Your task to perform on an android device: turn on translation in the chrome app Image 0: 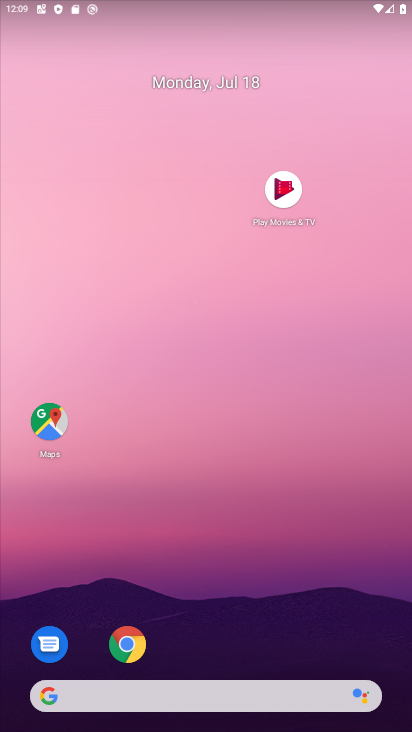
Step 0: drag from (263, 617) to (262, 60)
Your task to perform on an android device: turn on translation in the chrome app Image 1: 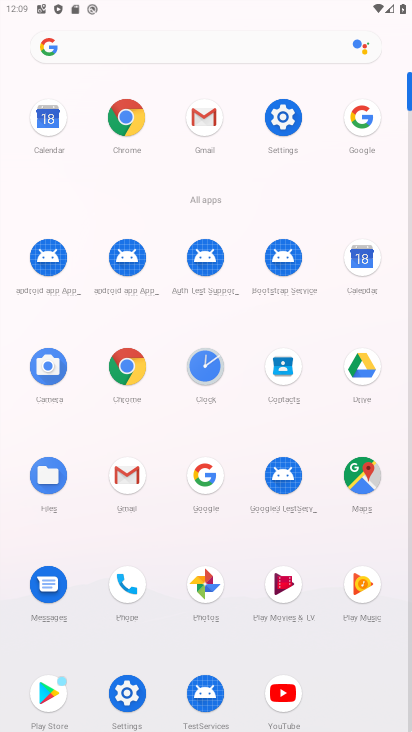
Step 1: click (124, 364)
Your task to perform on an android device: turn on translation in the chrome app Image 2: 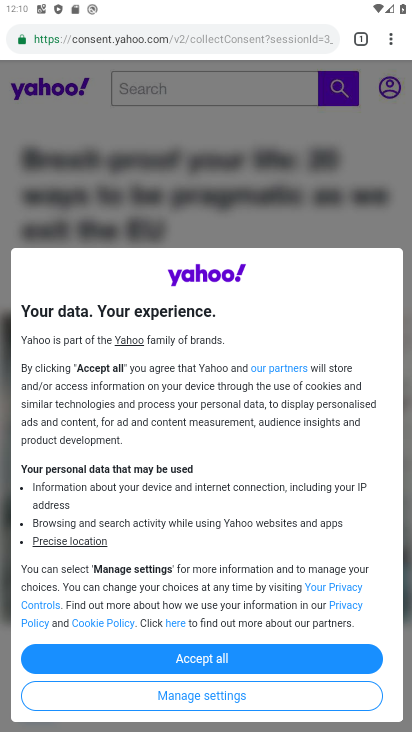
Step 2: drag from (387, 38) to (253, 466)
Your task to perform on an android device: turn on translation in the chrome app Image 3: 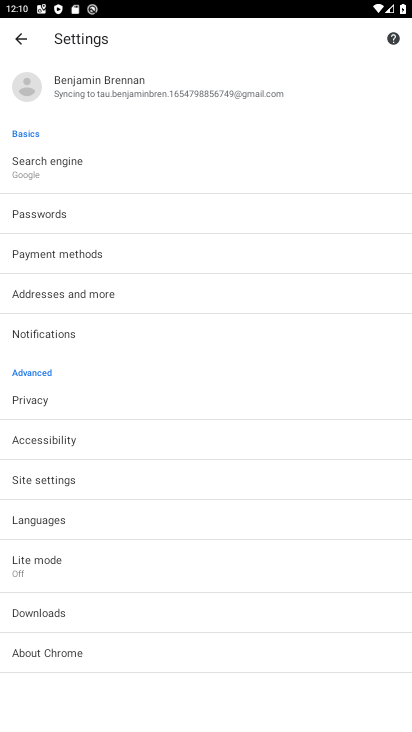
Step 3: click (41, 516)
Your task to perform on an android device: turn on translation in the chrome app Image 4: 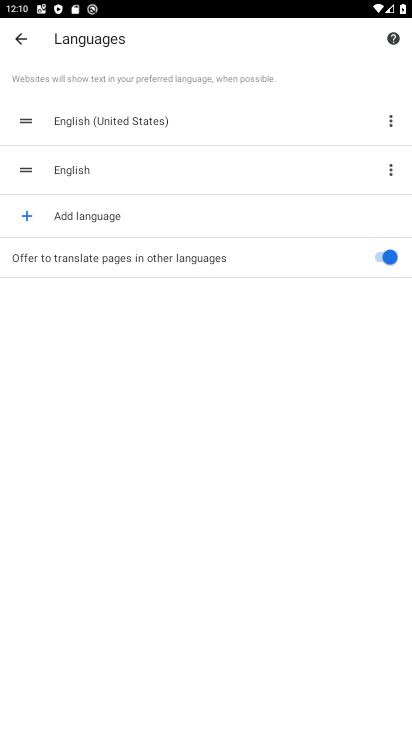
Step 4: task complete